Your task to perform on an android device: move a message to another label in the gmail app Image 0: 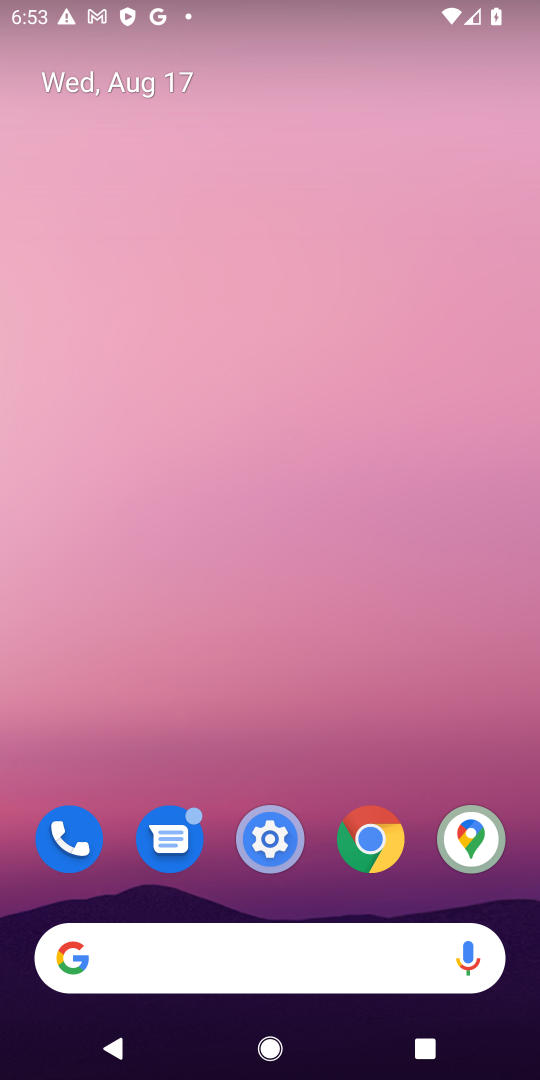
Step 0: drag from (240, 899) to (173, 118)
Your task to perform on an android device: move a message to another label in the gmail app Image 1: 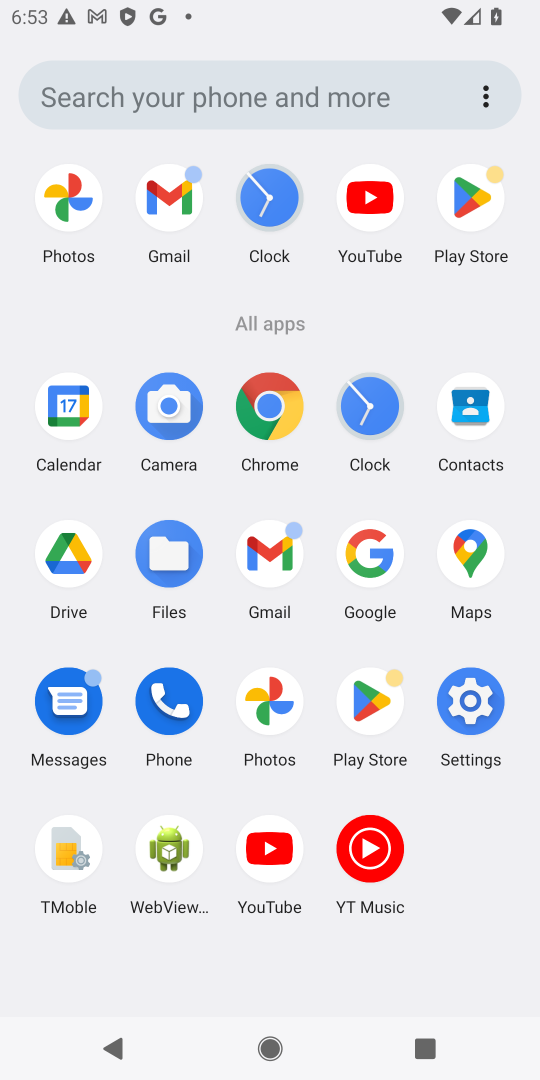
Step 1: click (251, 552)
Your task to perform on an android device: move a message to another label in the gmail app Image 2: 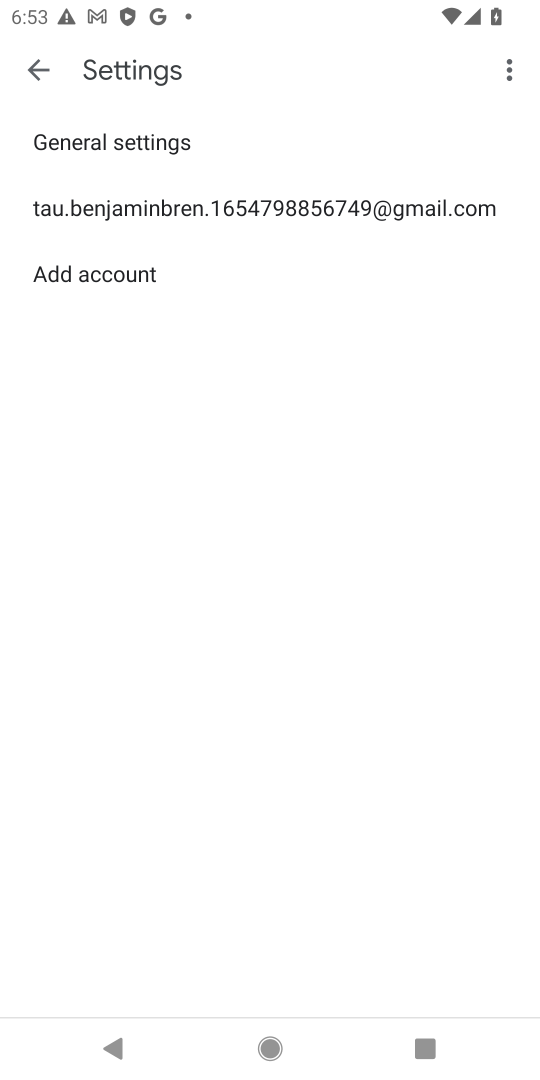
Step 2: click (32, 79)
Your task to perform on an android device: move a message to another label in the gmail app Image 3: 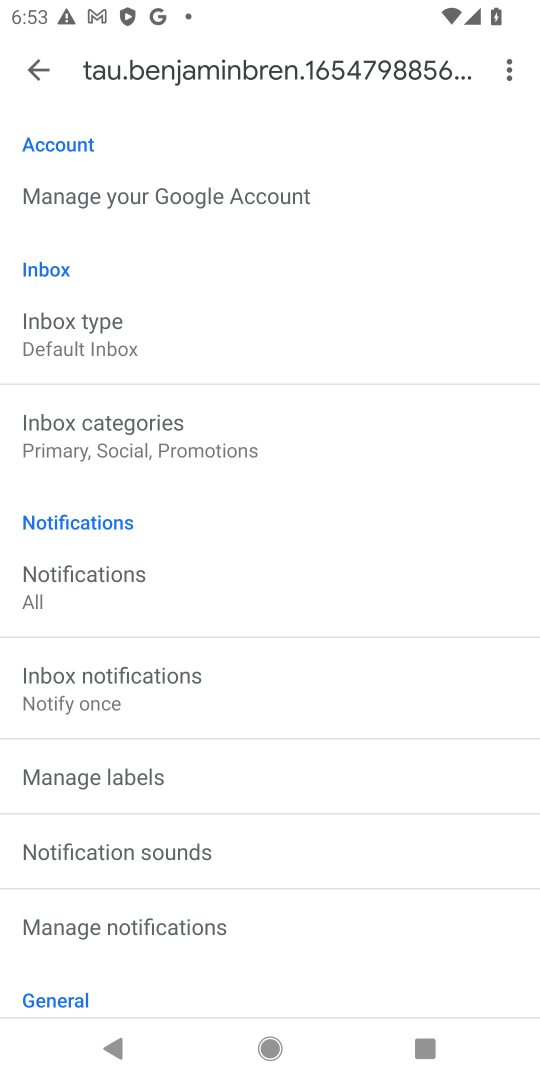
Step 3: click (32, 79)
Your task to perform on an android device: move a message to another label in the gmail app Image 4: 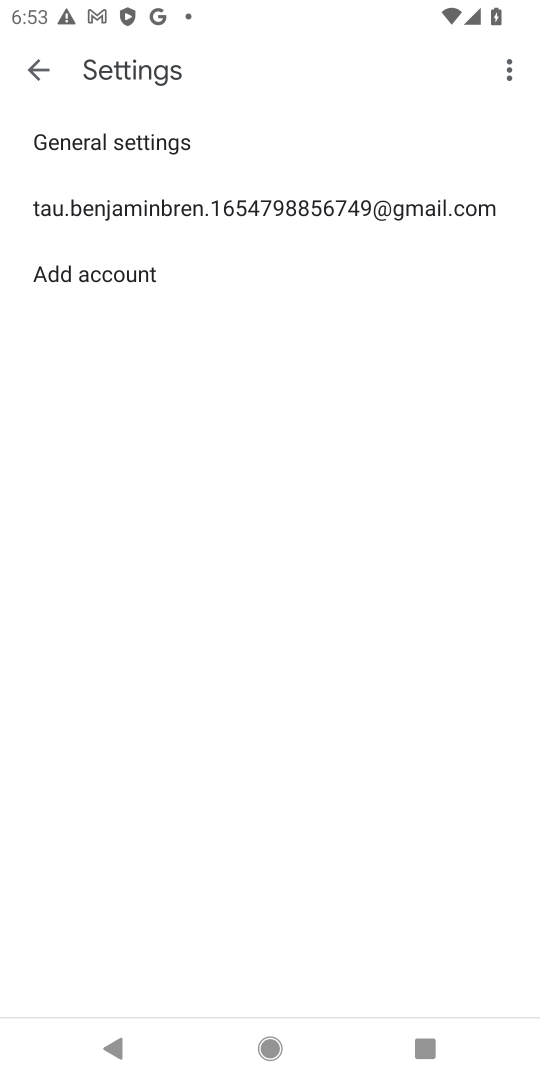
Step 4: click (32, 79)
Your task to perform on an android device: move a message to another label in the gmail app Image 5: 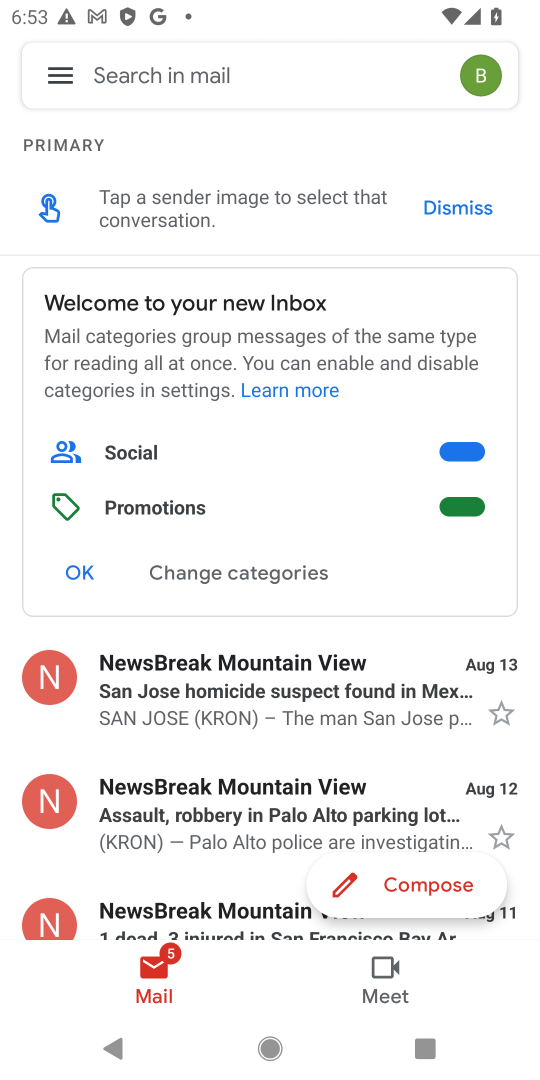
Step 5: click (159, 703)
Your task to perform on an android device: move a message to another label in the gmail app Image 6: 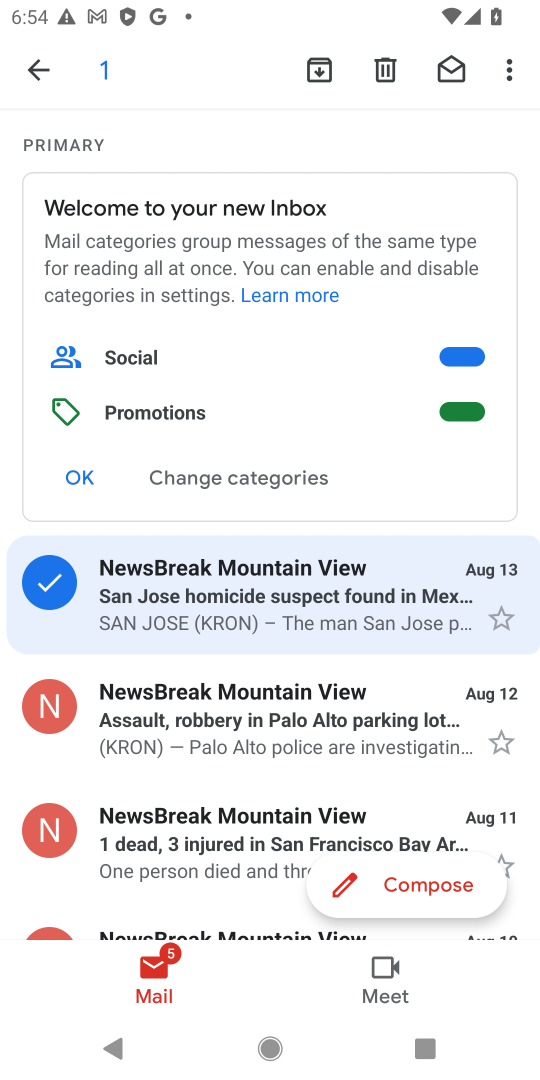
Step 6: click (503, 67)
Your task to perform on an android device: move a message to another label in the gmail app Image 7: 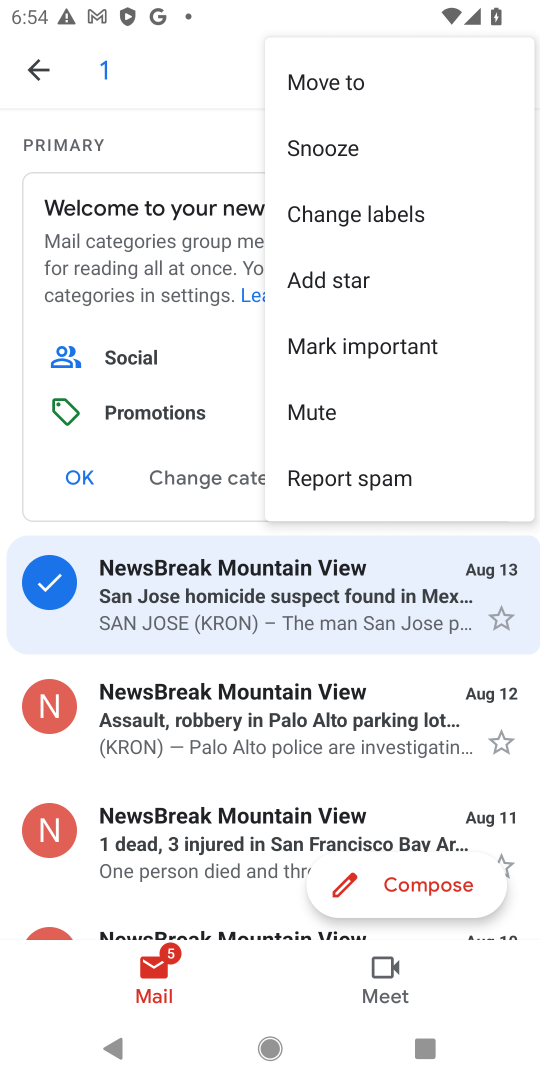
Step 7: click (328, 83)
Your task to perform on an android device: move a message to another label in the gmail app Image 8: 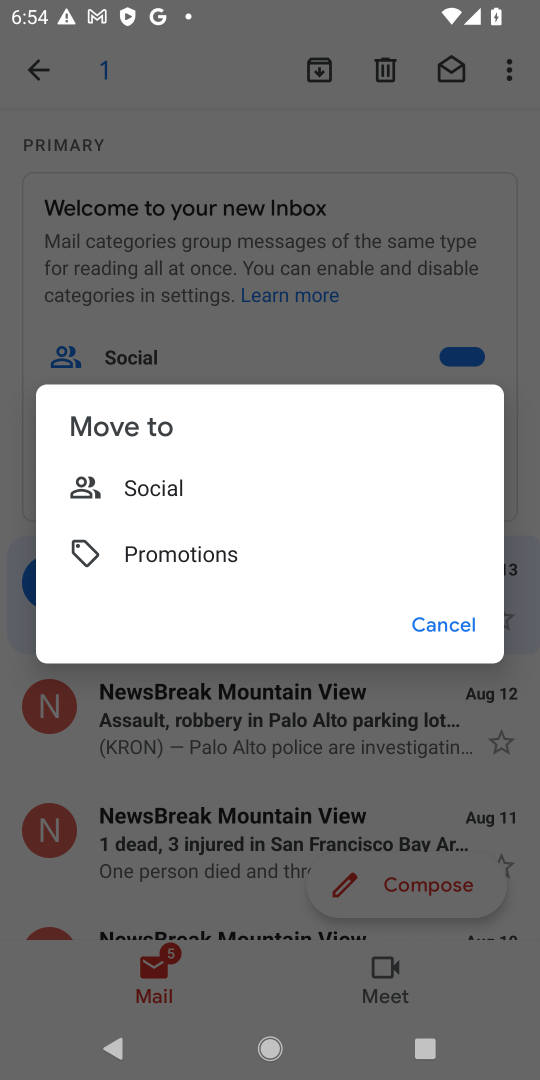
Step 8: click (186, 468)
Your task to perform on an android device: move a message to another label in the gmail app Image 9: 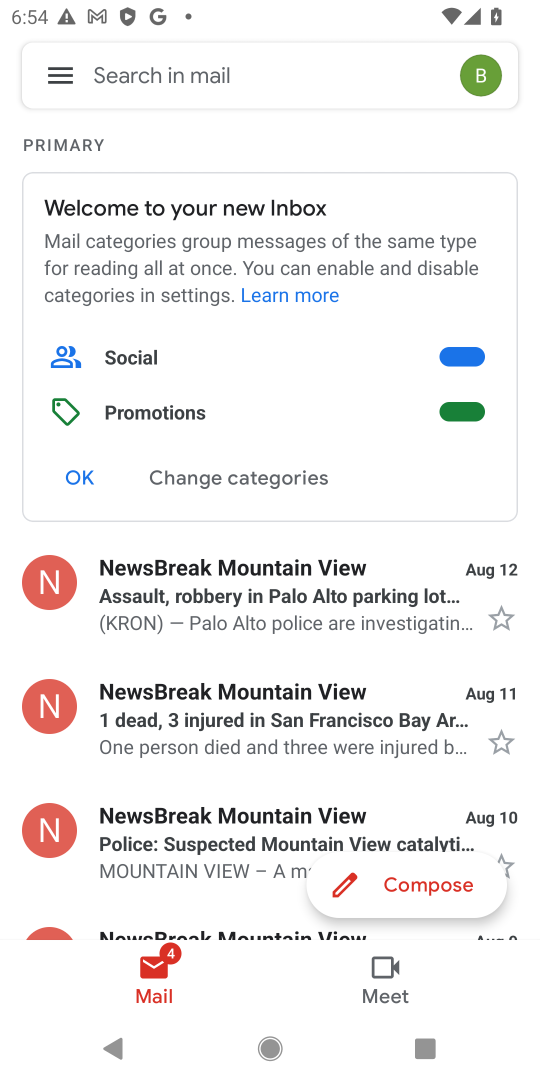
Step 9: task complete